Your task to perform on an android device: turn on the 24-hour format for clock Image 0: 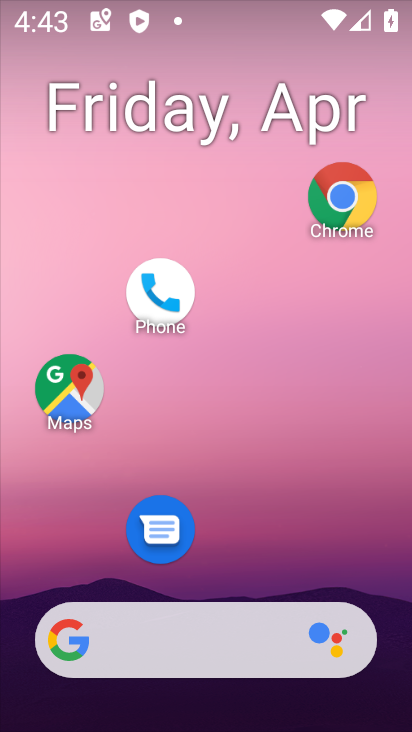
Step 0: drag from (238, 589) to (253, 62)
Your task to perform on an android device: turn on the 24-hour format for clock Image 1: 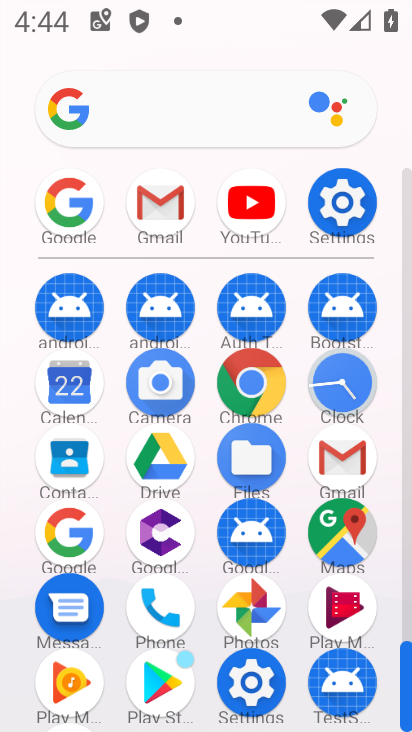
Step 1: click (340, 372)
Your task to perform on an android device: turn on the 24-hour format for clock Image 2: 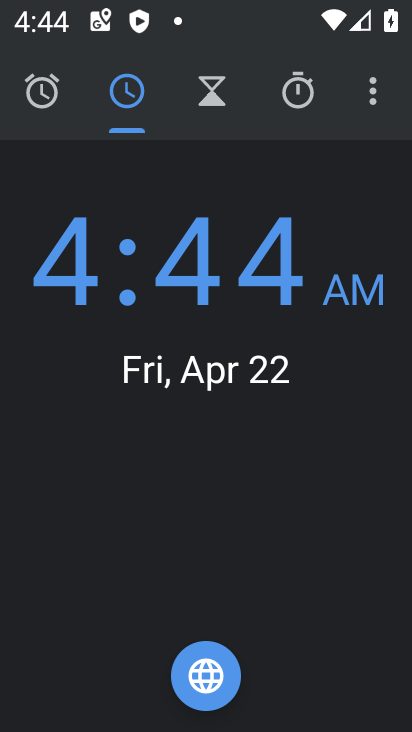
Step 2: click (374, 103)
Your task to perform on an android device: turn on the 24-hour format for clock Image 3: 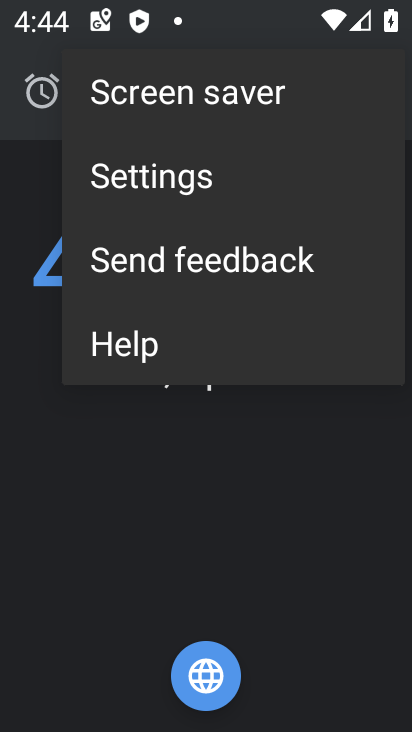
Step 3: click (221, 179)
Your task to perform on an android device: turn on the 24-hour format for clock Image 4: 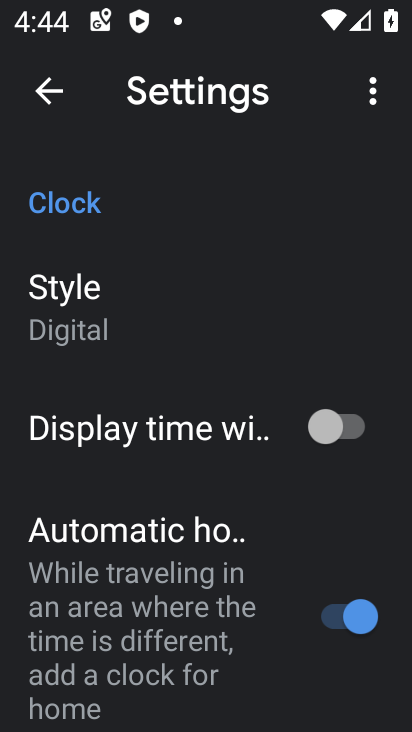
Step 4: drag from (228, 642) to (222, 129)
Your task to perform on an android device: turn on the 24-hour format for clock Image 5: 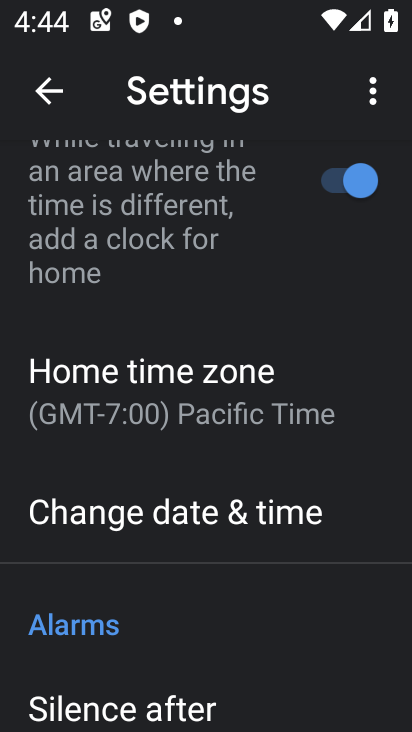
Step 5: click (245, 534)
Your task to perform on an android device: turn on the 24-hour format for clock Image 6: 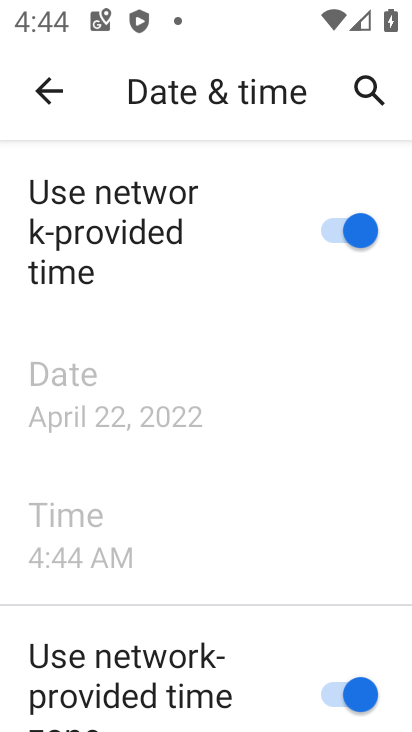
Step 6: drag from (228, 606) to (235, 163)
Your task to perform on an android device: turn on the 24-hour format for clock Image 7: 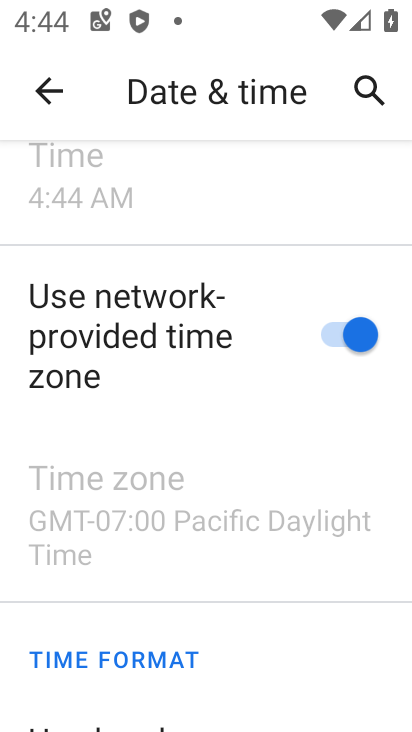
Step 7: drag from (209, 646) to (240, 220)
Your task to perform on an android device: turn on the 24-hour format for clock Image 8: 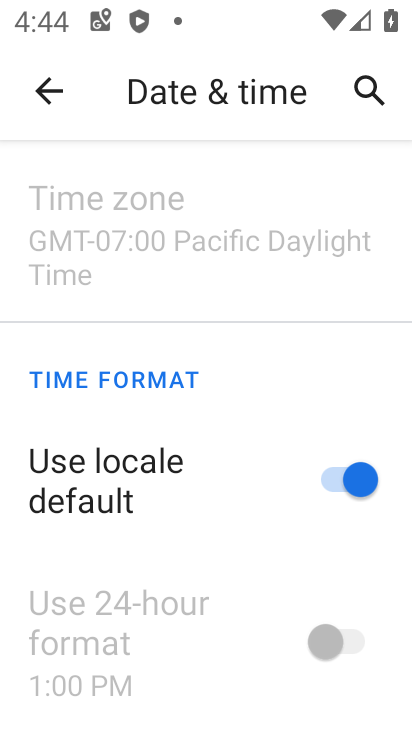
Step 8: click (344, 480)
Your task to perform on an android device: turn on the 24-hour format for clock Image 9: 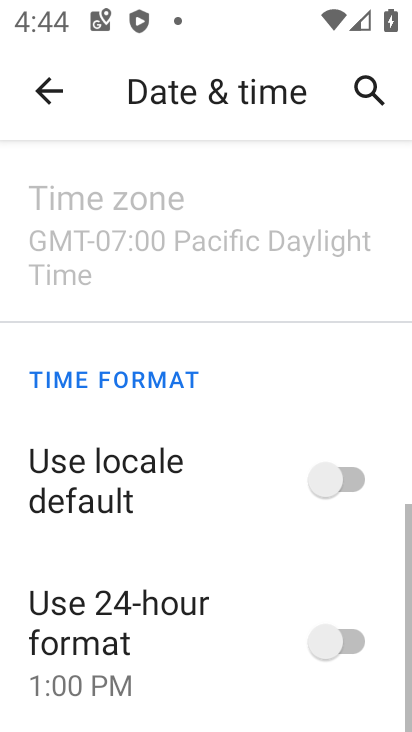
Step 9: click (351, 636)
Your task to perform on an android device: turn on the 24-hour format for clock Image 10: 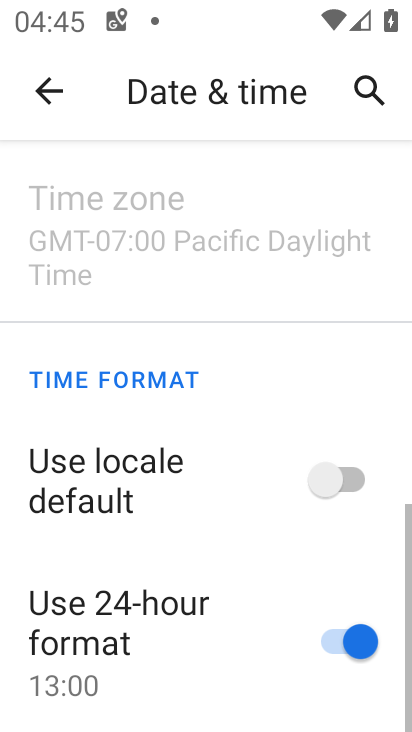
Step 10: task complete